Your task to perform on an android device: Open Youtube and go to the subscriptions tab Image 0: 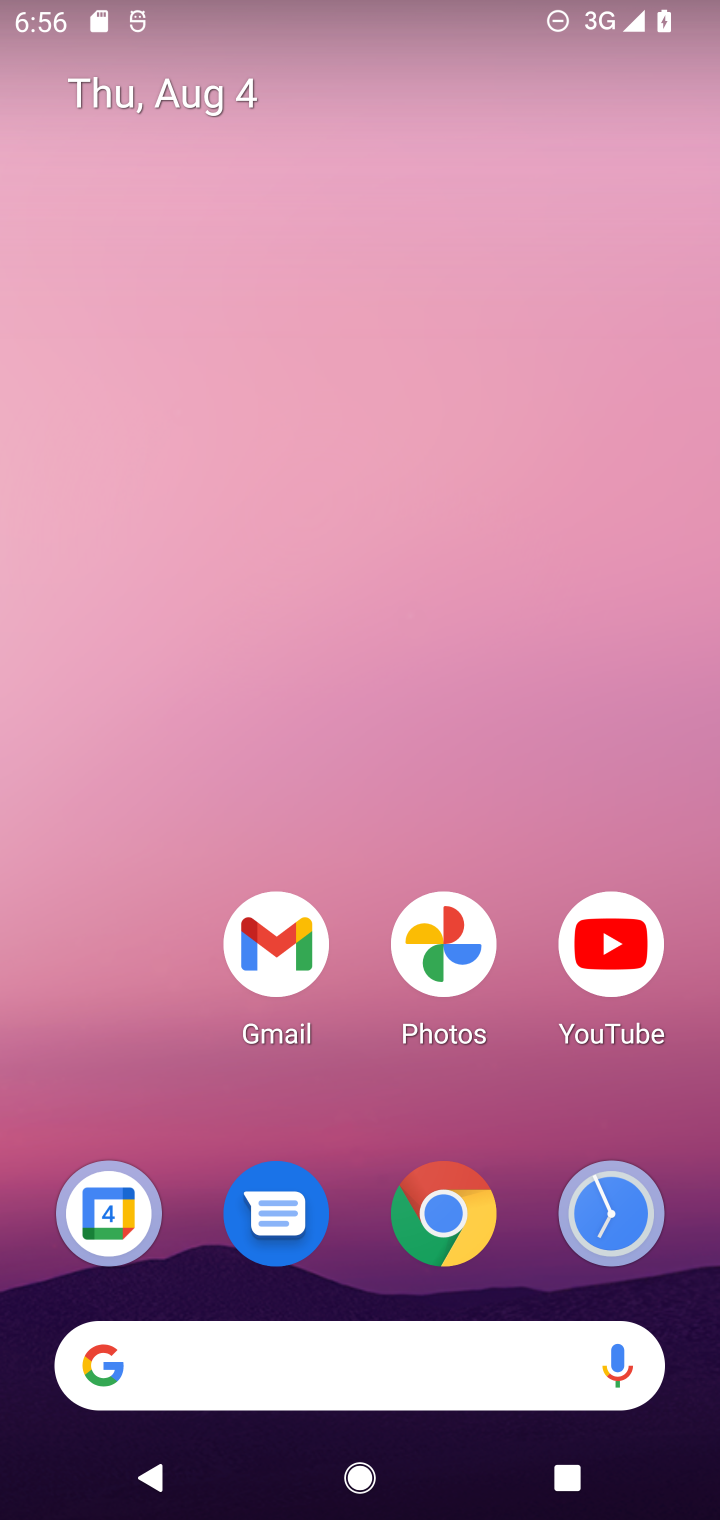
Step 0: press home button
Your task to perform on an android device: Open Youtube and go to the subscriptions tab Image 1: 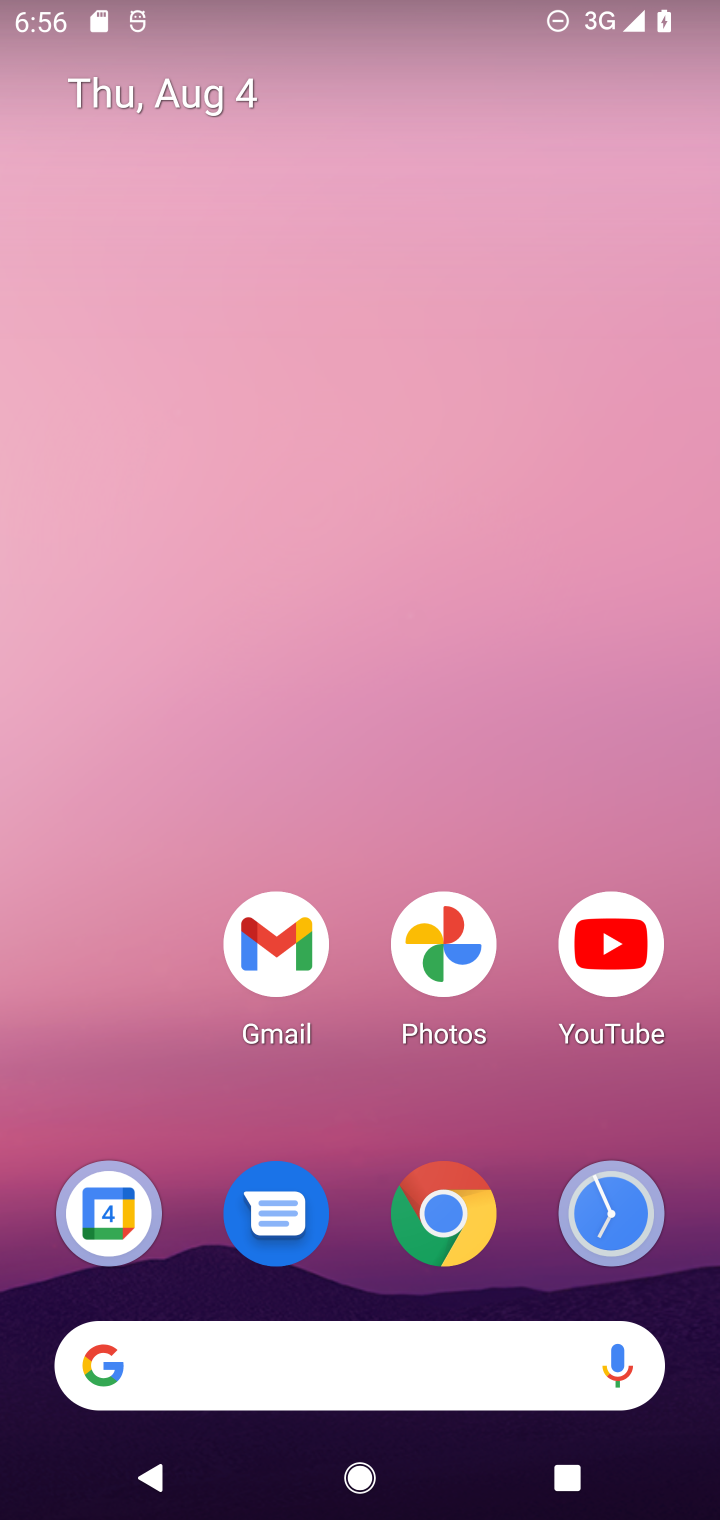
Step 1: drag from (164, 1098) to (142, 350)
Your task to perform on an android device: Open Youtube and go to the subscriptions tab Image 2: 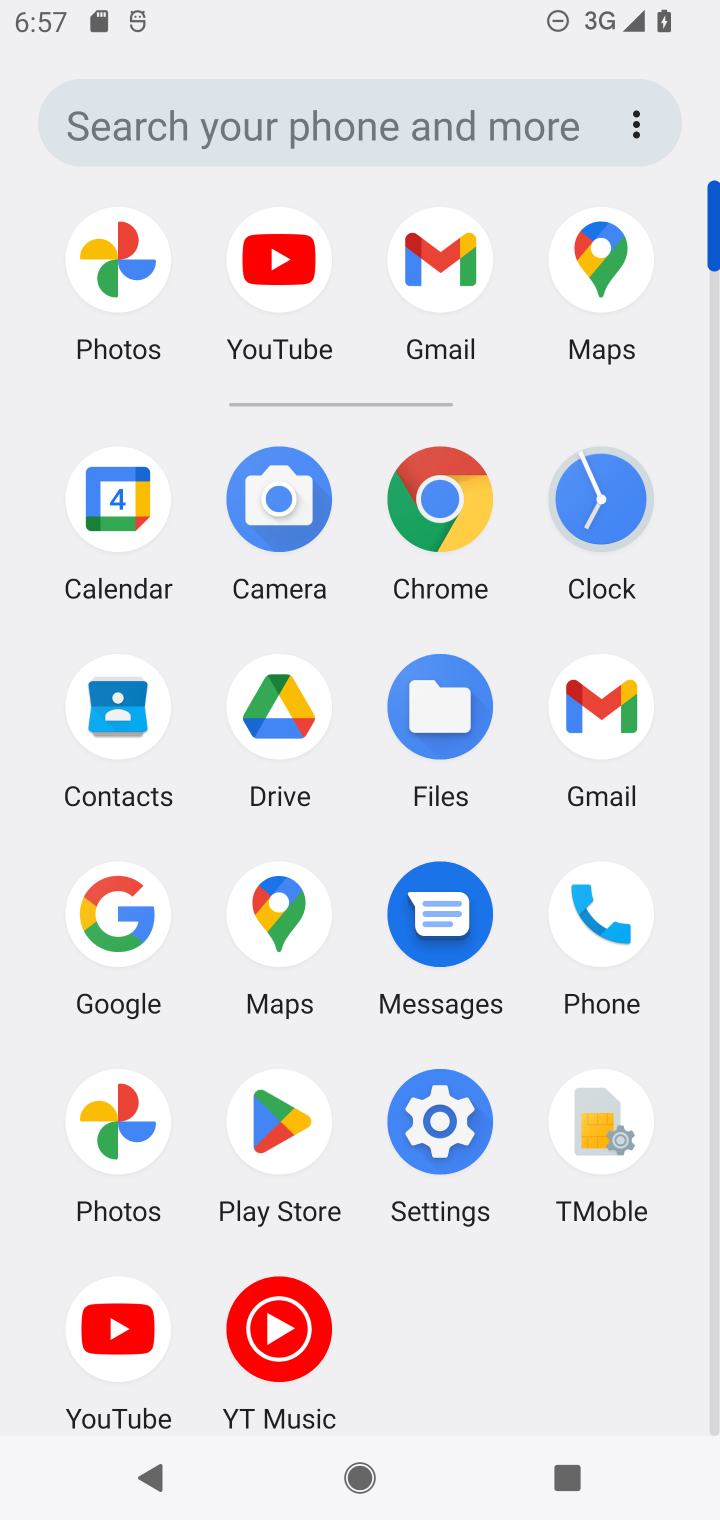
Step 2: click (122, 1335)
Your task to perform on an android device: Open Youtube and go to the subscriptions tab Image 3: 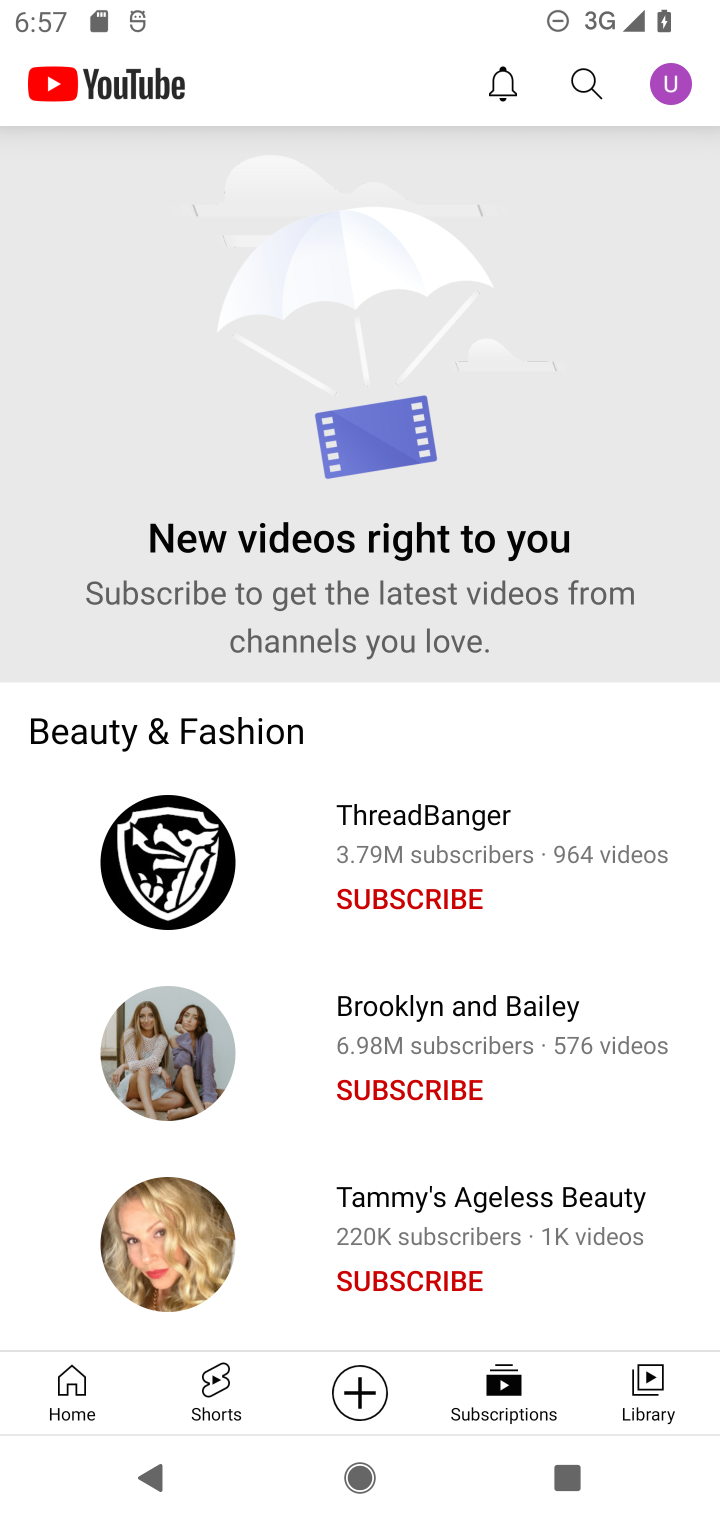
Step 3: click (508, 1382)
Your task to perform on an android device: Open Youtube and go to the subscriptions tab Image 4: 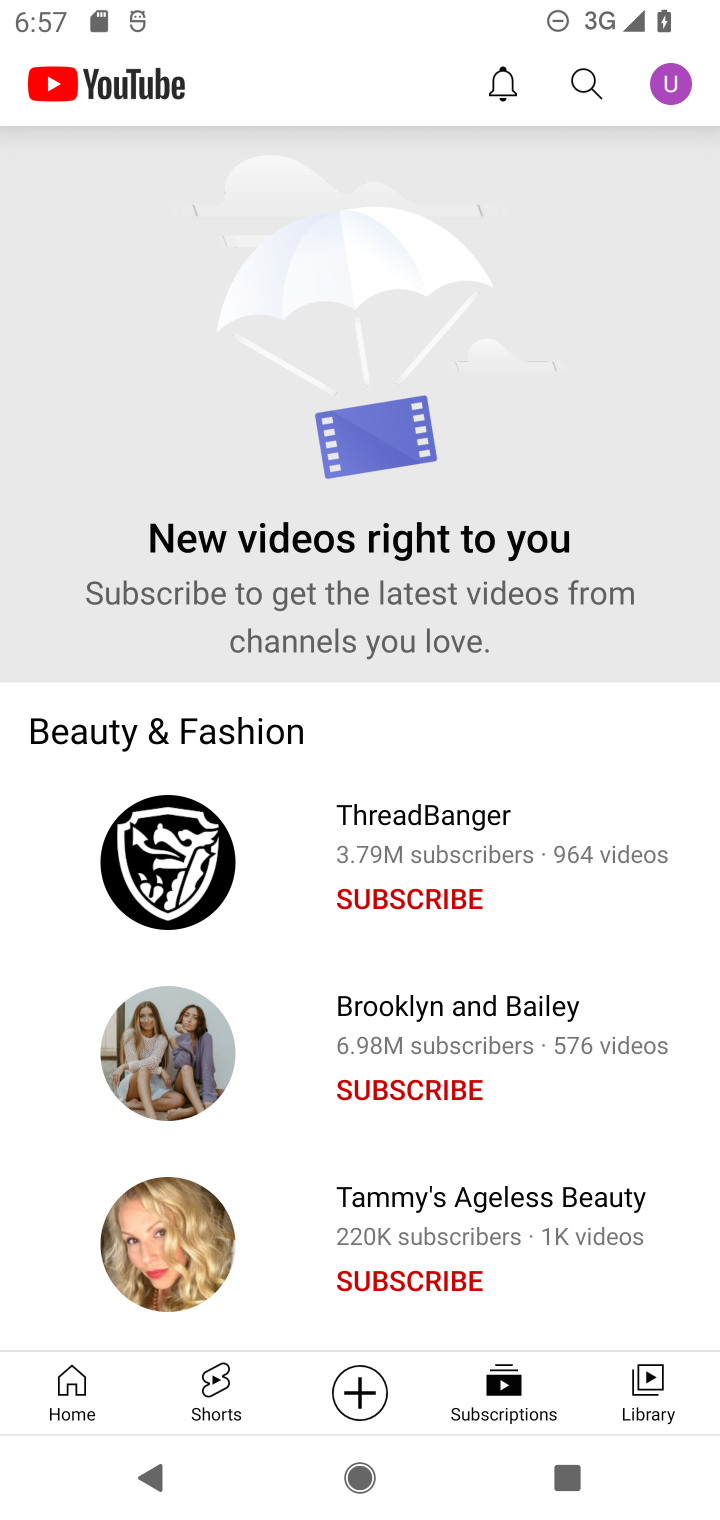
Step 4: task complete